Your task to perform on an android device: open wifi settings Image 0: 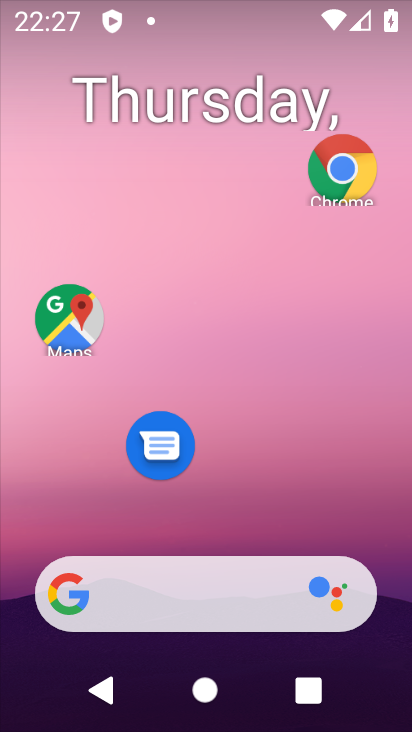
Step 0: drag from (217, 510) to (244, 43)
Your task to perform on an android device: open wifi settings Image 1: 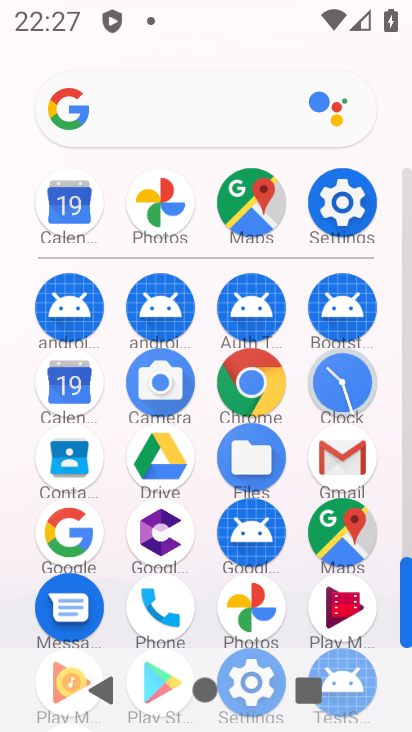
Step 1: click (349, 189)
Your task to perform on an android device: open wifi settings Image 2: 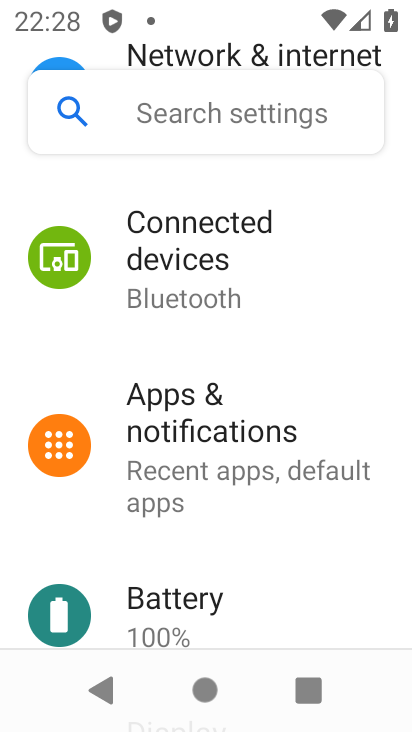
Step 2: drag from (201, 565) to (280, 22)
Your task to perform on an android device: open wifi settings Image 3: 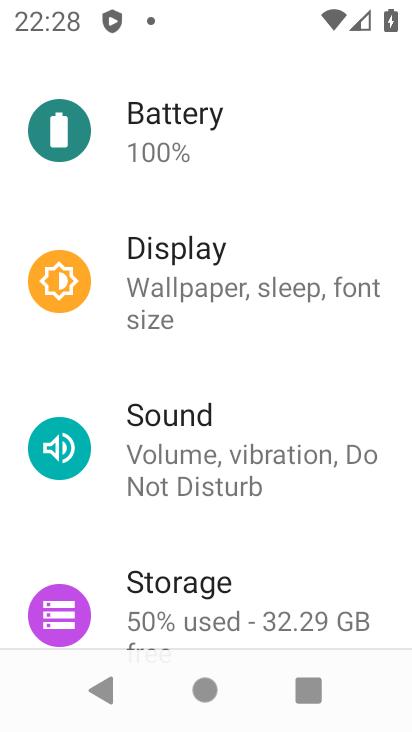
Step 3: drag from (178, 580) to (260, 160)
Your task to perform on an android device: open wifi settings Image 4: 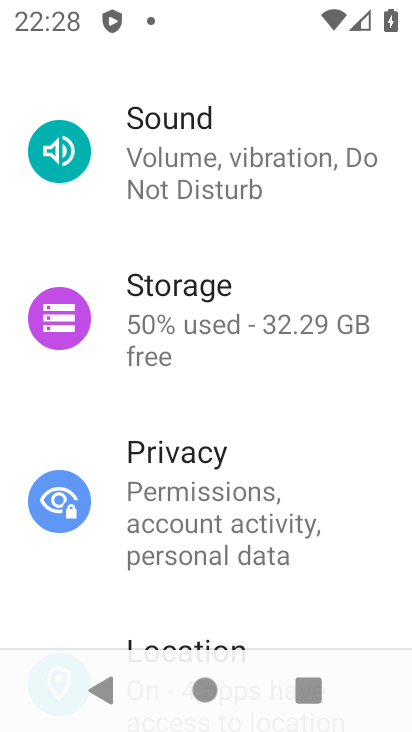
Step 4: drag from (217, 574) to (409, 712)
Your task to perform on an android device: open wifi settings Image 5: 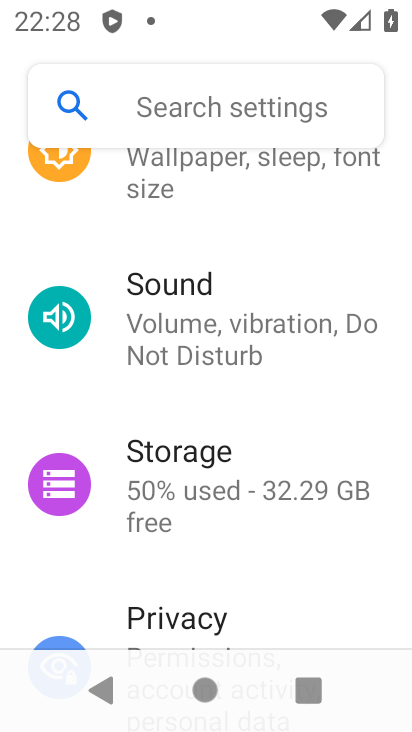
Step 5: drag from (180, 194) to (395, 729)
Your task to perform on an android device: open wifi settings Image 6: 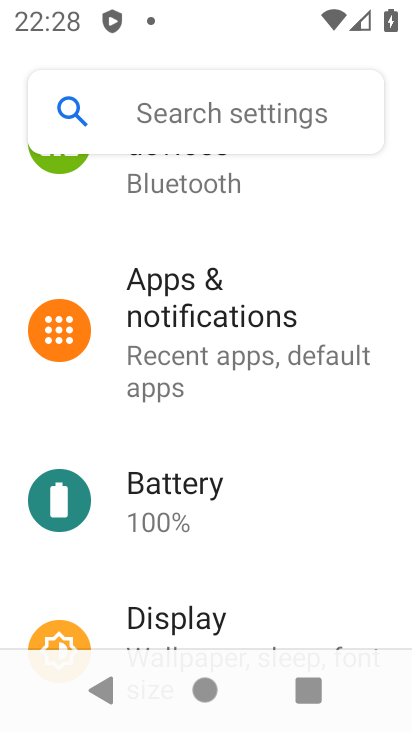
Step 6: drag from (231, 191) to (210, 483)
Your task to perform on an android device: open wifi settings Image 7: 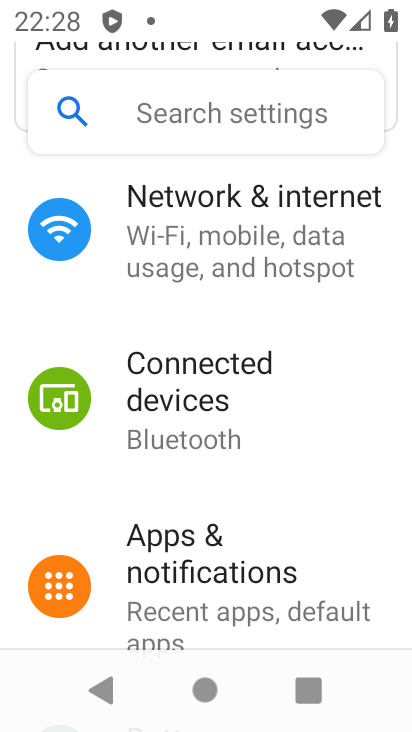
Step 7: click (209, 209)
Your task to perform on an android device: open wifi settings Image 8: 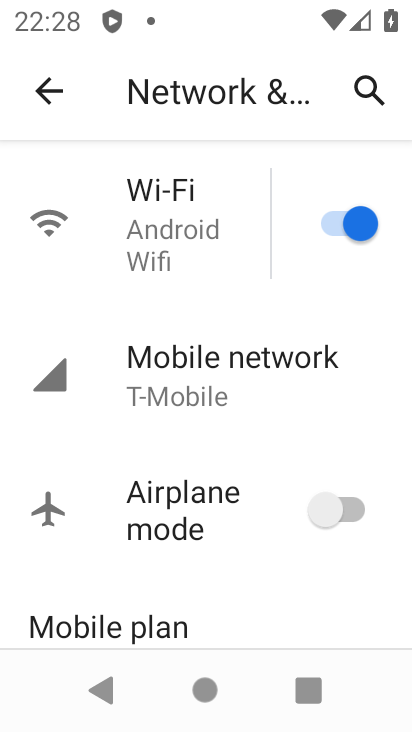
Step 8: click (195, 193)
Your task to perform on an android device: open wifi settings Image 9: 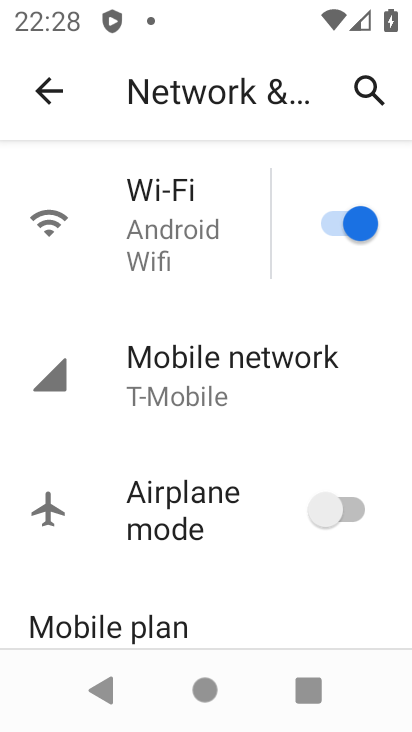
Step 9: click (195, 193)
Your task to perform on an android device: open wifi settings Image 10: 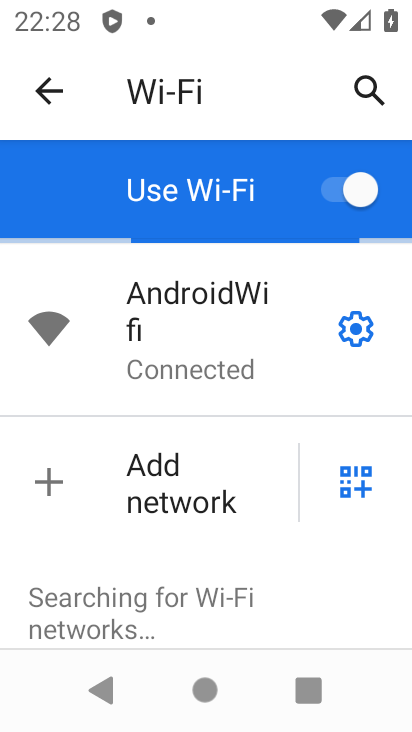
Step 10: task complete